Your task to perform on an android device: stop showing notifications on the lock screen Image 0: 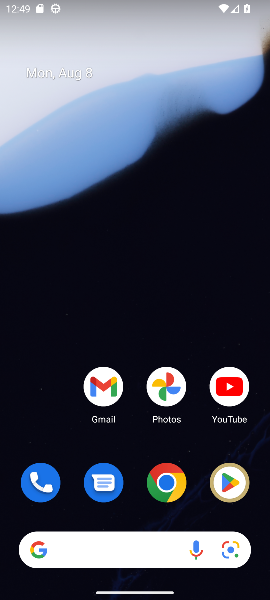
Step 0: drag from (154, 547) to (164, 96)
Your task to perform on an android device: stop showing notifications on the lock screen Image 1: 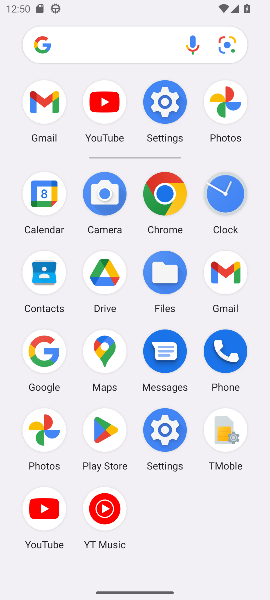
Step 1: click (168, 439)
Your task to perform on an android device: stop showing notifications on the lock screen Image 2: 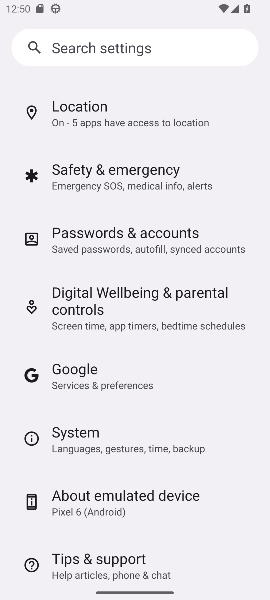
Step 2: drag from (196, 157) to (196, 542)
Your task to perform on an android device: stop showing notifications on the lock screen Image 3: 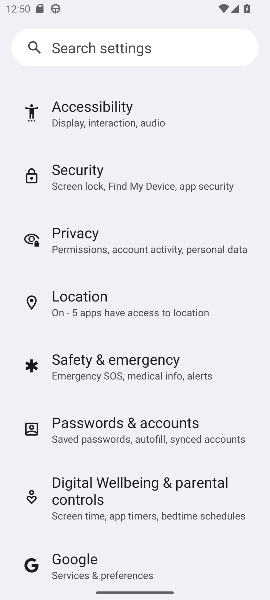
Step 3: drag from (236, 95) to (212, 552)
Your task to perform on an android device: stop showing notifications on the lock screen Image 4: 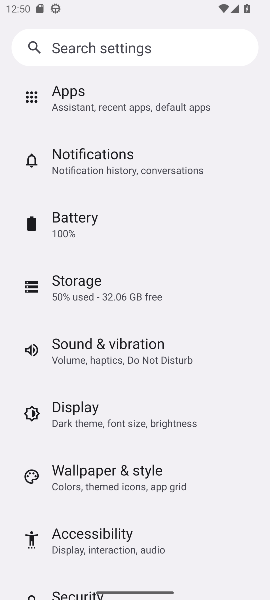
Step 4: click (149, 168)
Your task to perform on an android device: stop showing notifications on the lock screen Image 5: 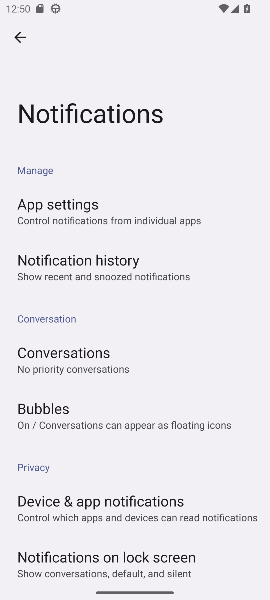
Step 5: click (151, 558)
Your task to perform on an android device: stop showing notifications on the lock screen Image 6: 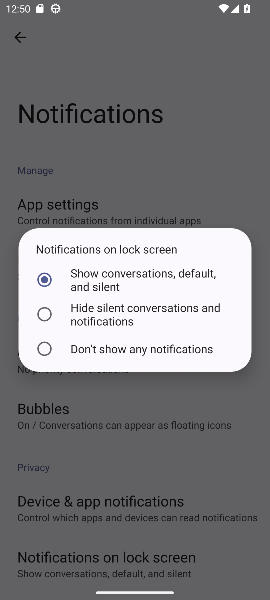
Step 6: click (45, 348)
Your task to perform on an android device: stop showing notifications on the lock screen Image 7: 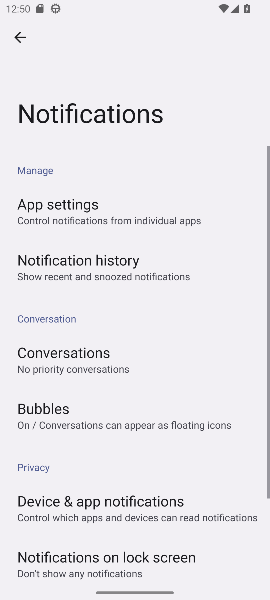
Step 7: task complete